Your task to perform on an android device: Open Chrome and go to settings Image 0: 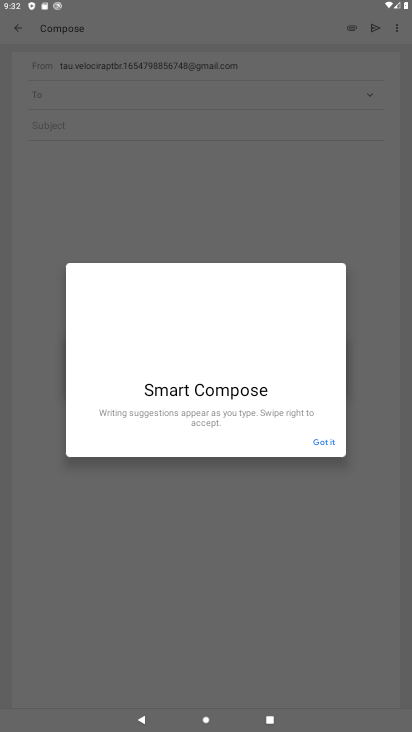
Step 0: press home button
Your task to perform on an android device: Open Chrome and go to settings Image 1: 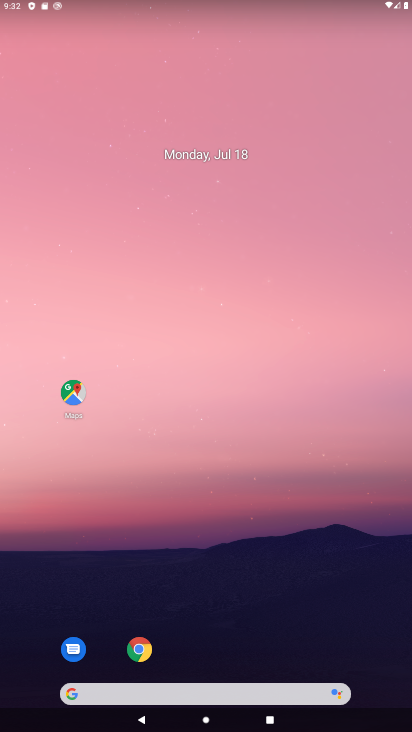
Step 1: drag from (205, 657) to (225, 266)
Your task to perform on an android device: Open Chrome and go to settings Image 2: 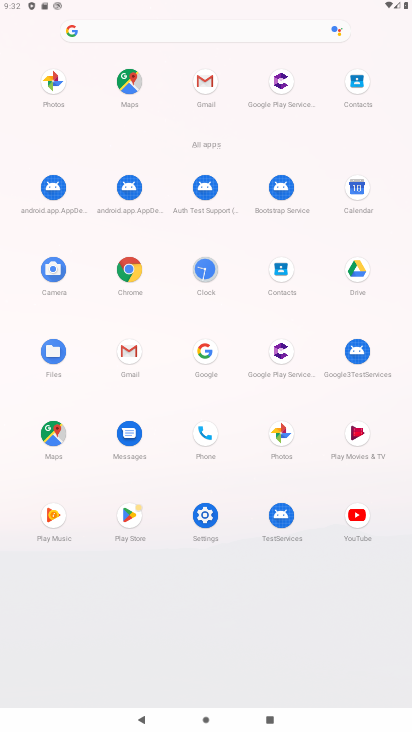
Step 2: click (122, 265)
Your task to perform on an android device: Open Chrome and go to settings Image 3: 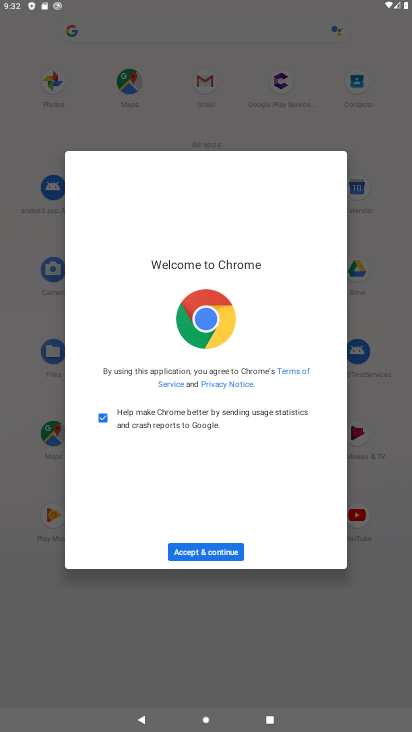
Step 3: click (213, 552)
Your task to perform on an android device: Open Chrome and go to settings Image 4: 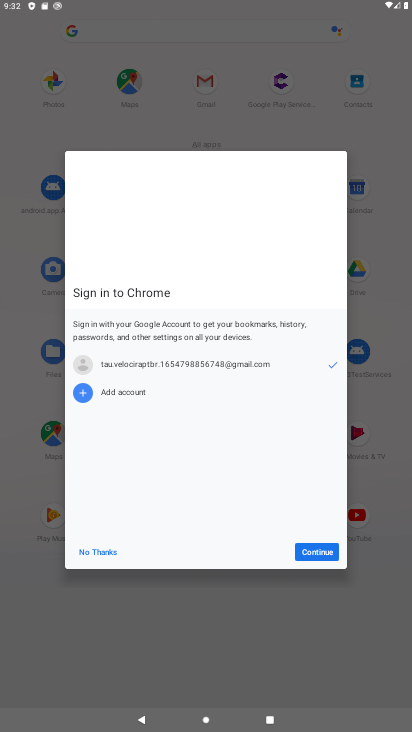
Step 4: click (321, 550)
Your task to perform on an android device: Open Chrome and go to settings Image 5: 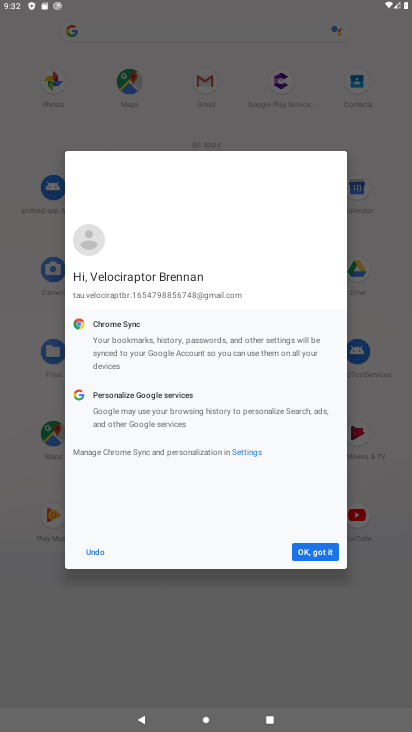
Step 5: click (329, 556)
Your task to perform on an android device: Open Chrome and go to settings Image 6: 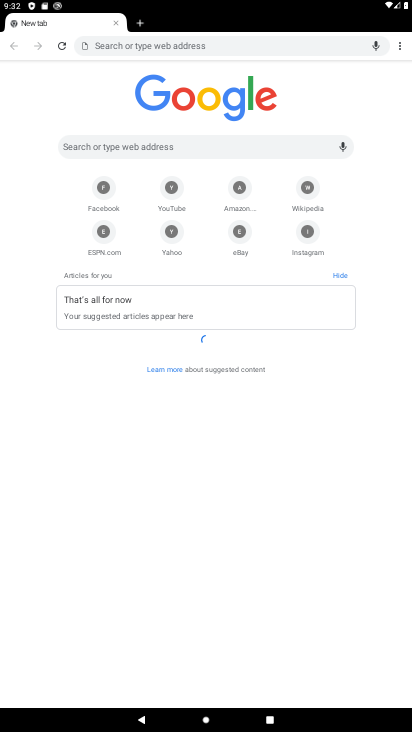
Step 6: task complete